Your task to perform on an android device: Do I have any events this weekend? Image 0: 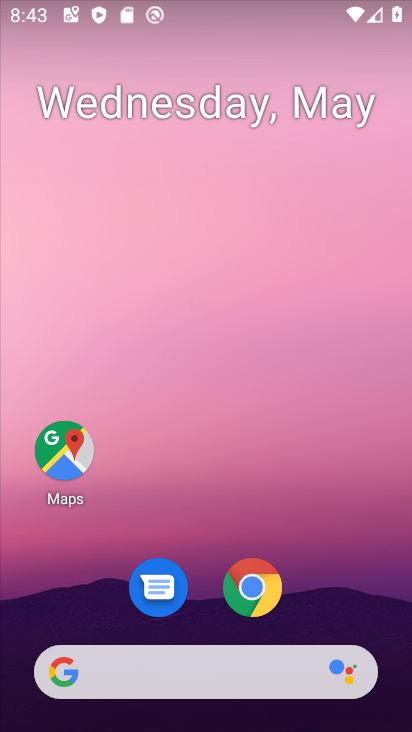
Step 0: drag from (377, 622) to (331, 59)
Your task to perform on an android device: Do I have any events this weekend? Image 1: 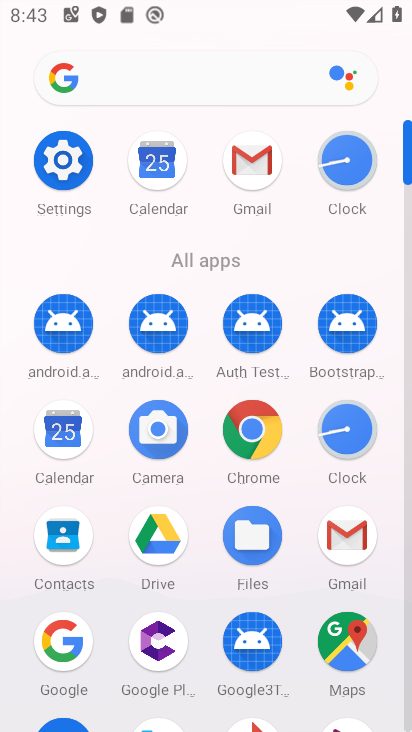
Step 1: click (57, 428)
Your task to perform on an android device: Do I have any events this weekend? Image 2: 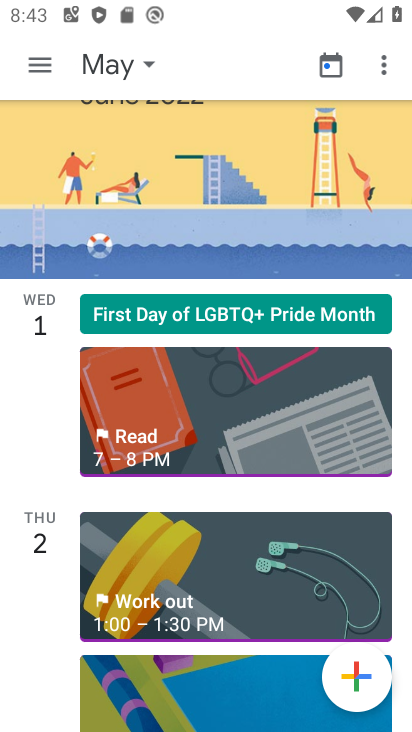
Step 2: click (42, 60)
Your task to perform on an android device: Do I have any events this weekend? Image 3: 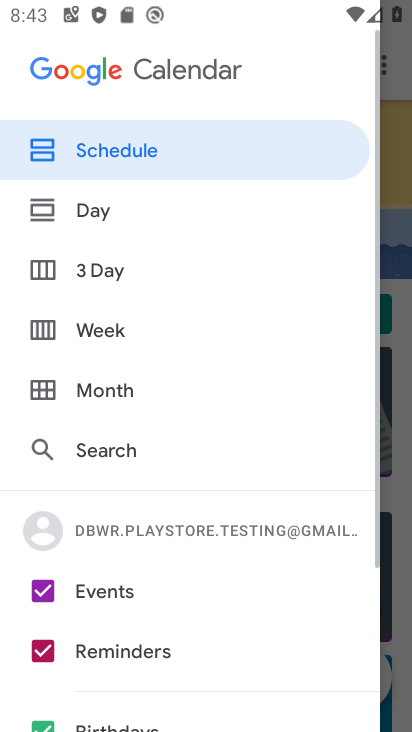
Step 3: click (101, 326)
Your task to perform on an android device: Do I have any events this weekend? Image 4: 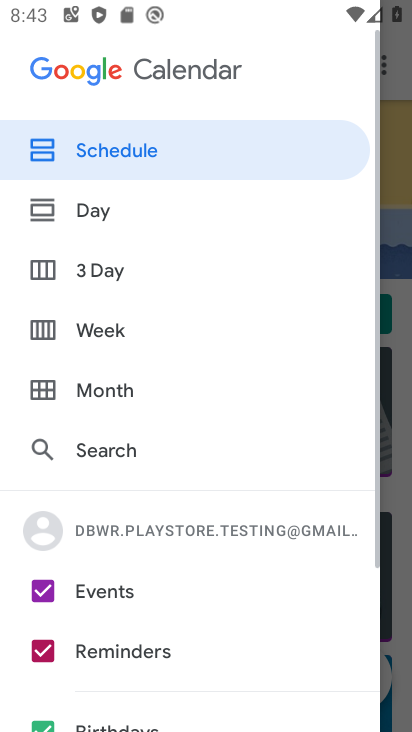
Step 4: click (101, 326)
Your task to perform on an android device: Do I have any events this weekend? Image 5: 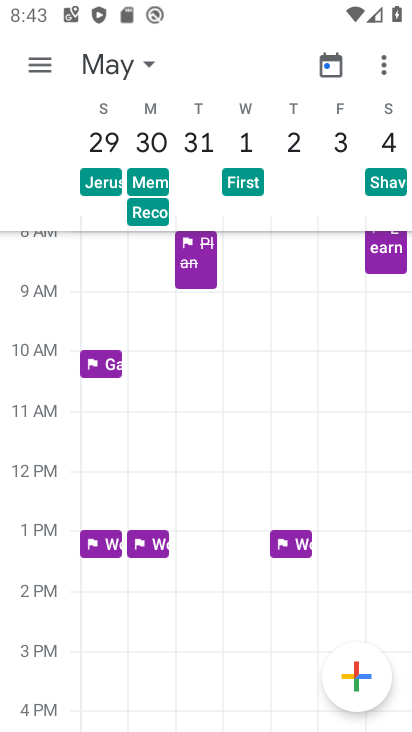
Step 5: click (146, 64)
Your task to perform on an android device: Do I have any events this weekend? Image 6: 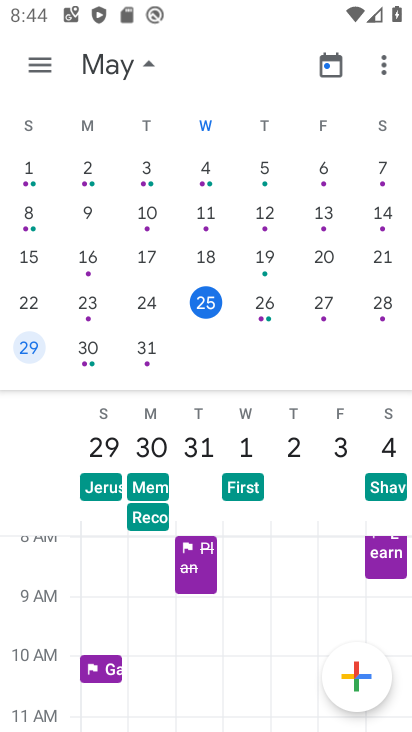
Step 6: click (199, 298)
Your task to perform on an android device: Do I have any events this weekend? Image 7: 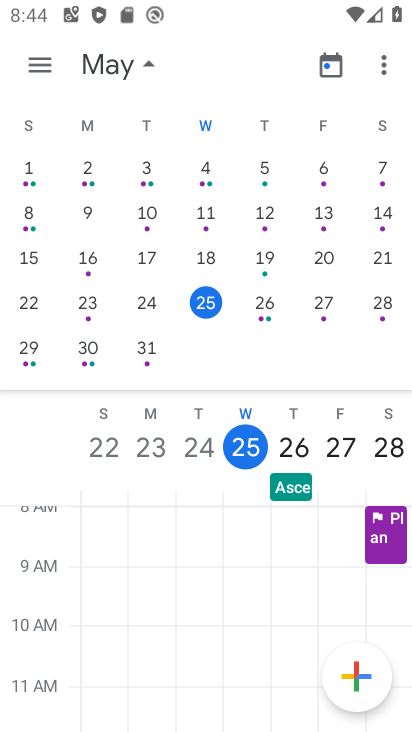
Step 7: task complete